Your task to perform on an android device: turn pop-ups off in chrome Image 0: 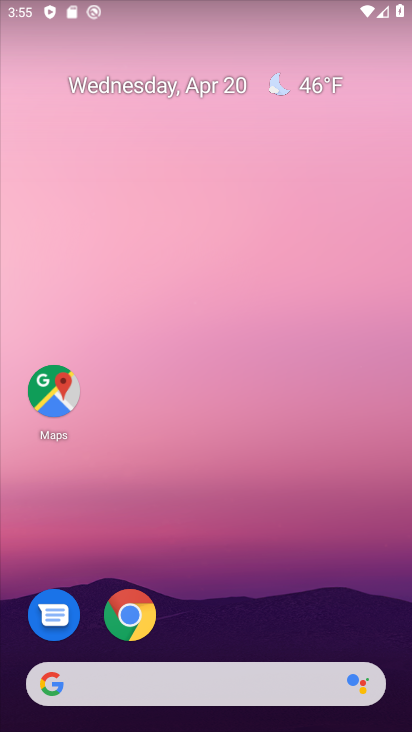
Step 0: drag from (358, 458) to (411, 149)
Your task to perform on an android device: turn pop-ups off in chrome Image 1: 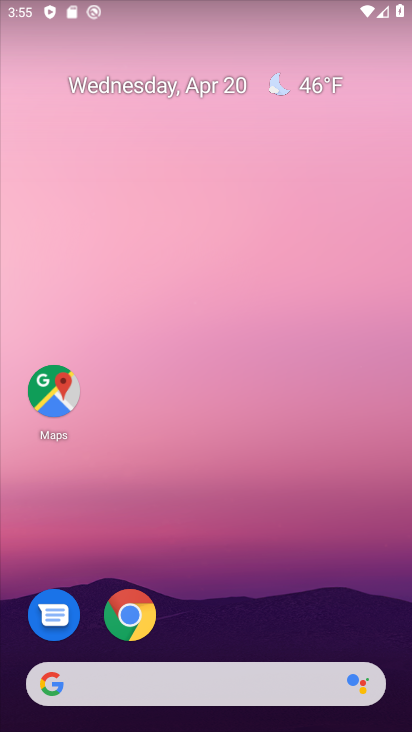
Step 1: drag from (295, 421) to (337, 8)
Your task to perform on an android device: turn pop-ups off in chrome Image 2: 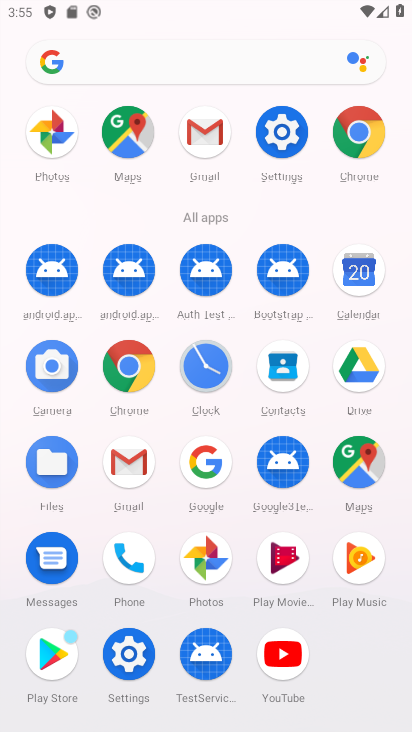
Step 2: click (364, 125)
Your task to perform on an android device: turn pop-ups off in chrome Image 3: 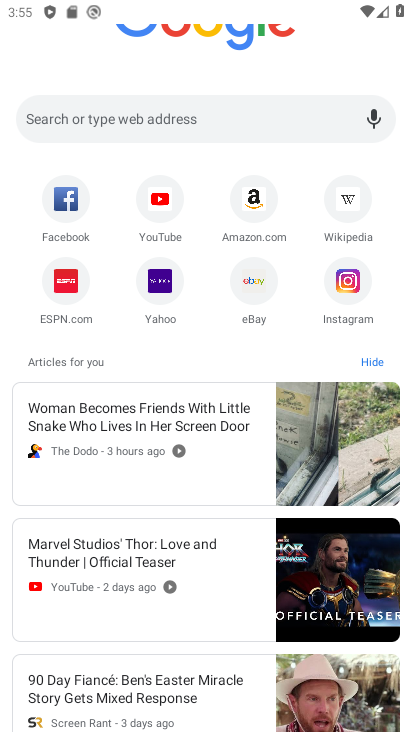
Step 3: drag from (357, 80) to (305, 393)
Your task to perform on an android device: turn pop-ups off in chrome Image 4: 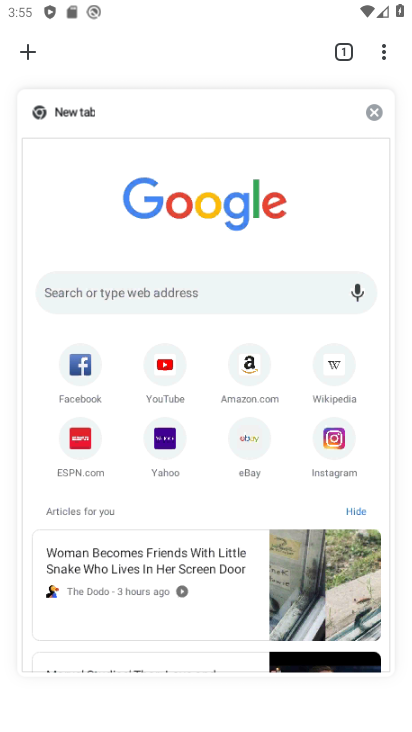
Step 4: click (387, 56)
Your task to perform on an android device: turn pop-ups off in chrome Image 5: 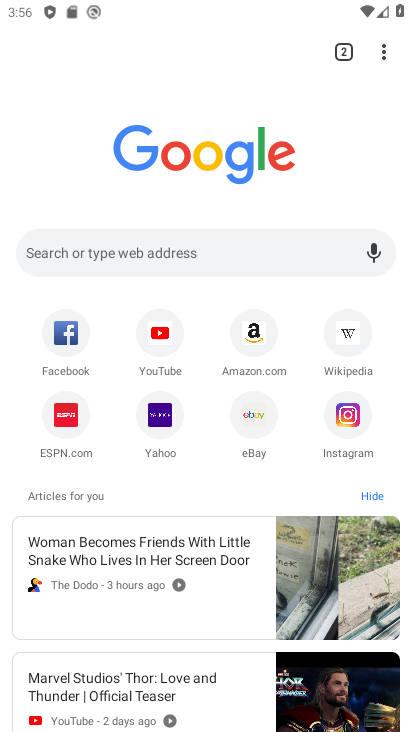
Step 5: drag from (387, 56) to (205, 435)
Your task to perform on an android device: turn pop-ups off in chrome Image 6: 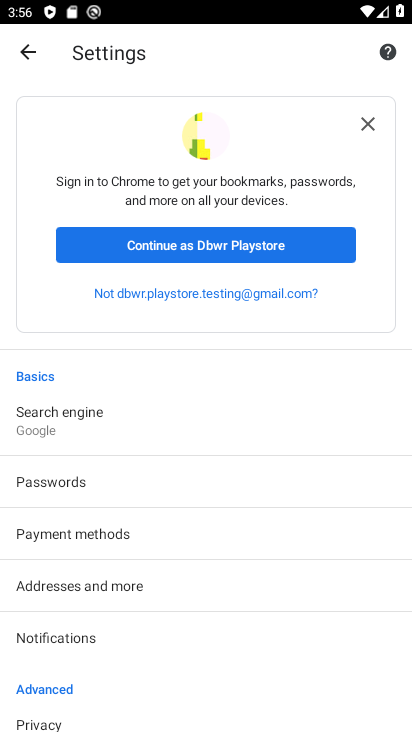
Step 6: drag from (178, 557) to (231, 299)
Your task to perform on an android device: turn pop-ups off in chrome Image 7: 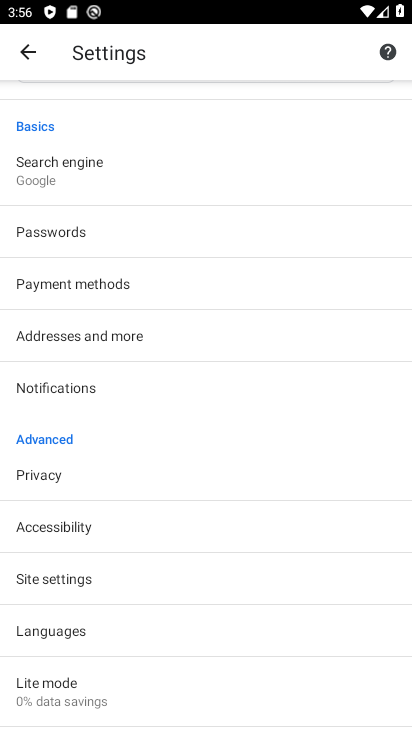
Step 7: click (70, 580)
Your task to perform on an android device: turn pop-ups off in chrome Image 8: 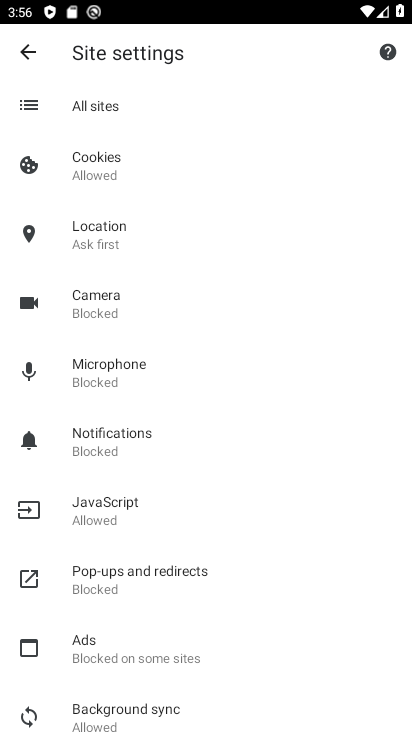
Step 8: click (131, 581)
Your task to perform on an android device: turn pop-ups off in chrome Image 9: 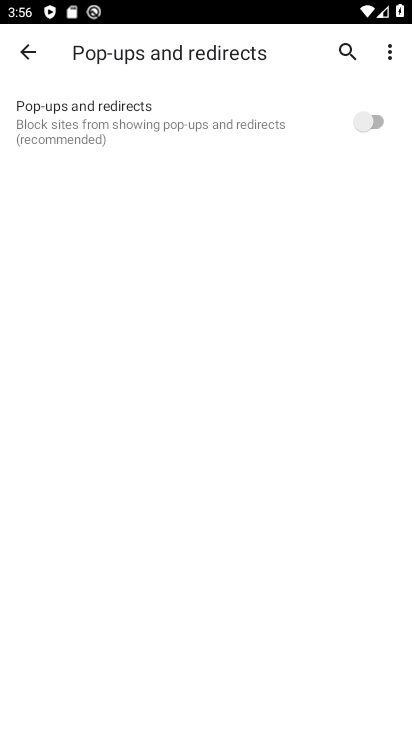
Step 9: task complete